Your task to perform on an android device: Go to Yahoo.com Image 0: 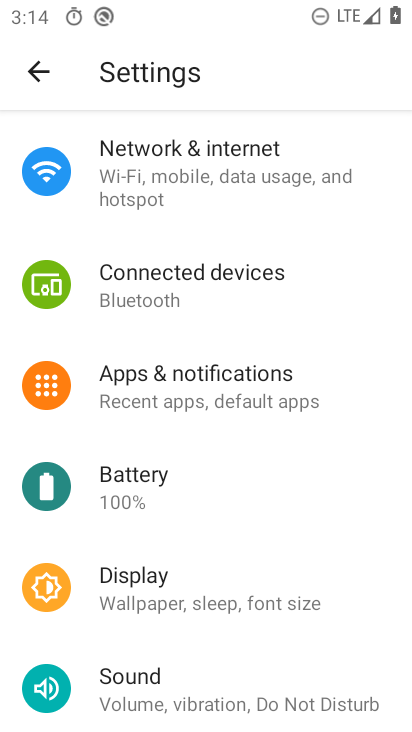
Step 0: press home button
Your task to perform on an android device: Go to Yahoo.com Image 1: 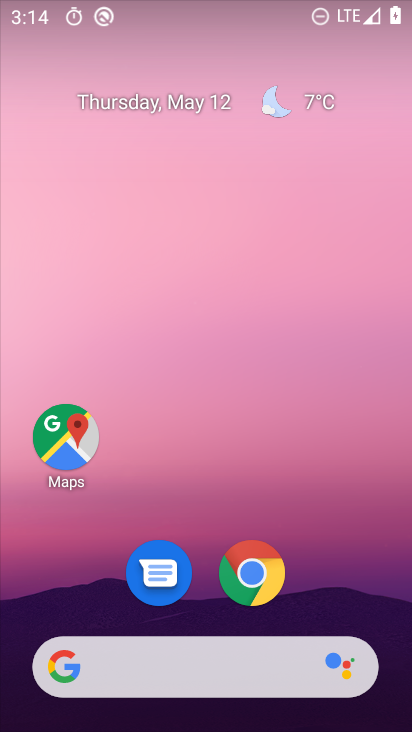
Step 1: drag from (374, 604) to (215, 258)
Your task to perform on an android device: Go to Yahoo.com Image 2: 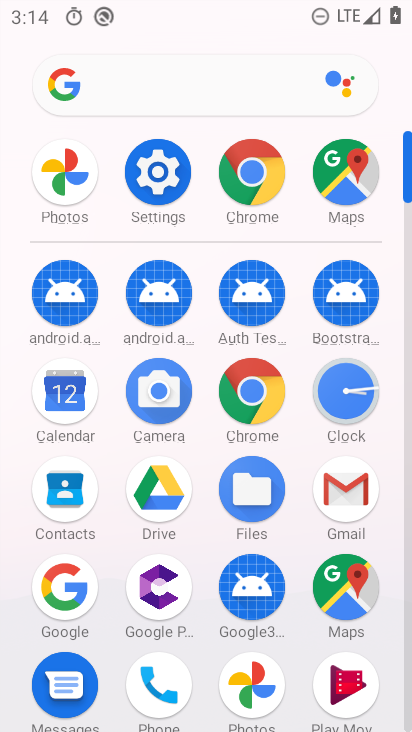
Step 2: click (236, 170)
Your task to perform on an android device: Go to Yahoo.com Image 3: 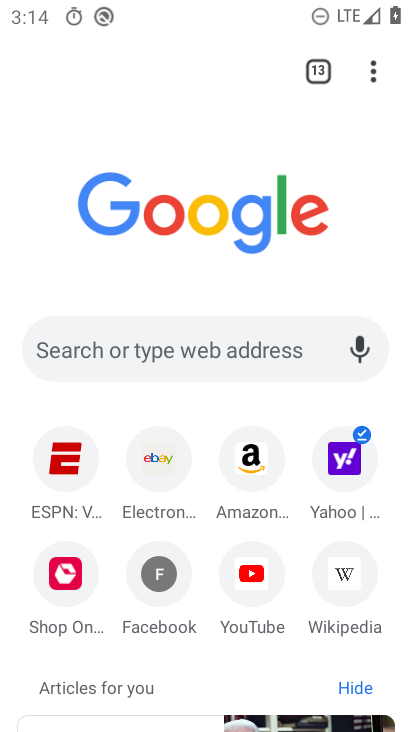
Step 3: click (322, 446)
Your task to perform on an android device: Go to Yahoo.com Image 4: 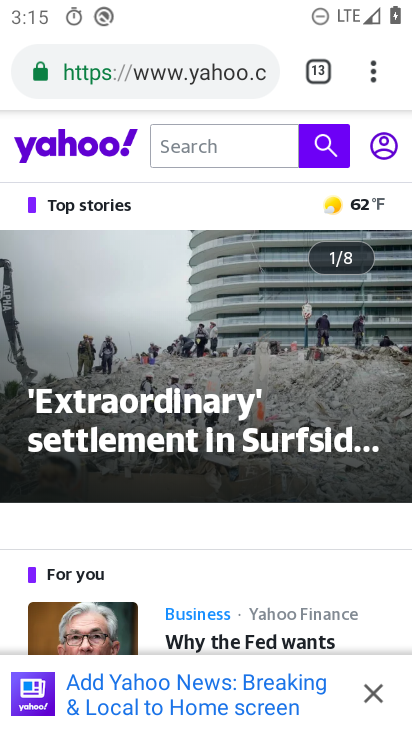
Step 4: task complete